Your task to perform on an android device: Open the contacts app Image 0: 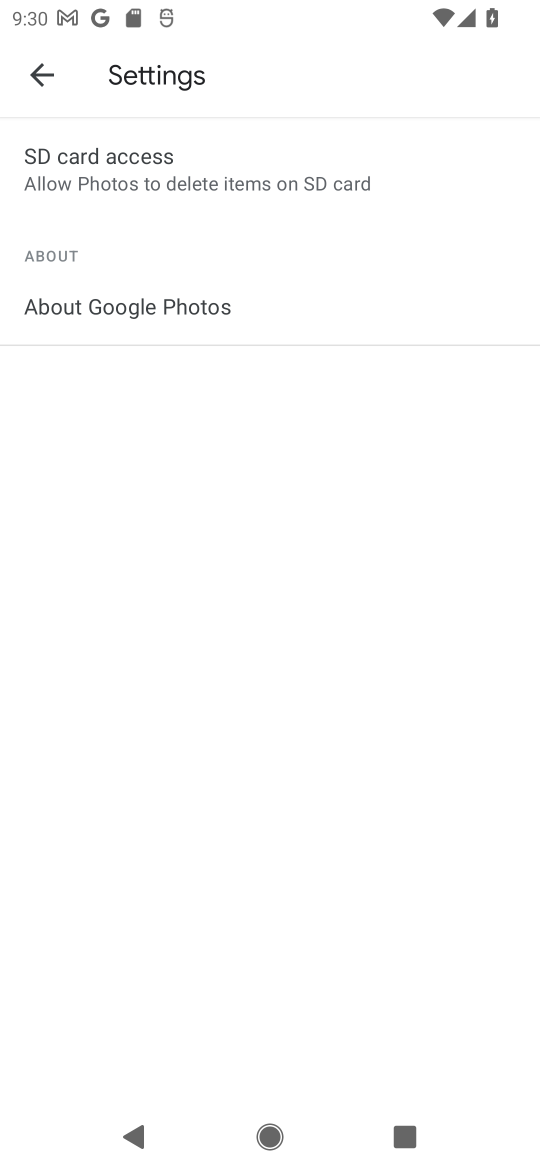
Step 0: press home button
Your task to perform on an android device: Open the contacts app Image 1: 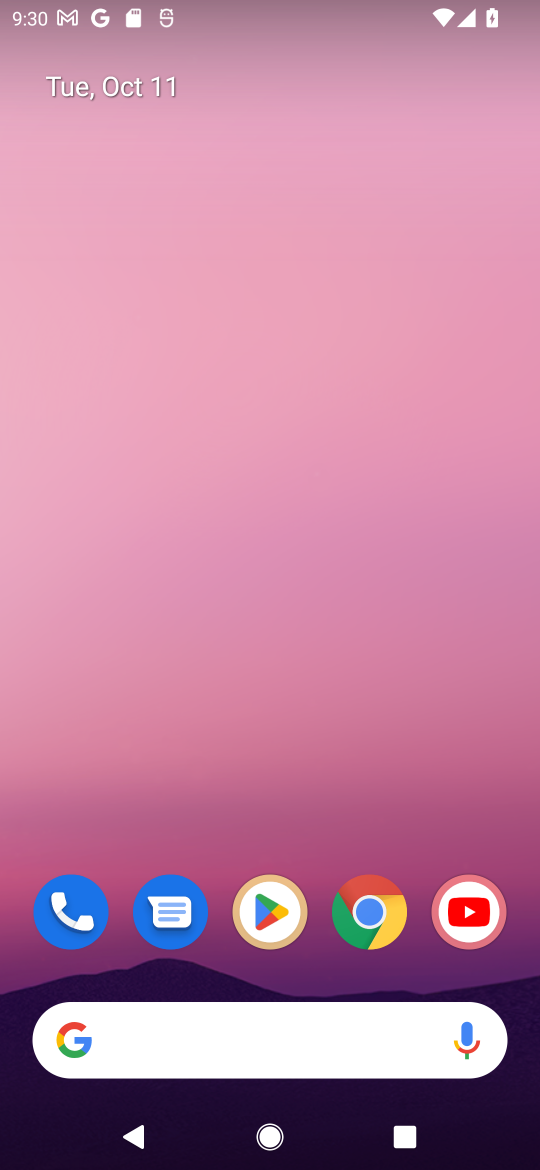
Step 1: drag from (332, 979) to (291, 124)
Your task to perform on an android device: Open the contacts app Image 2: 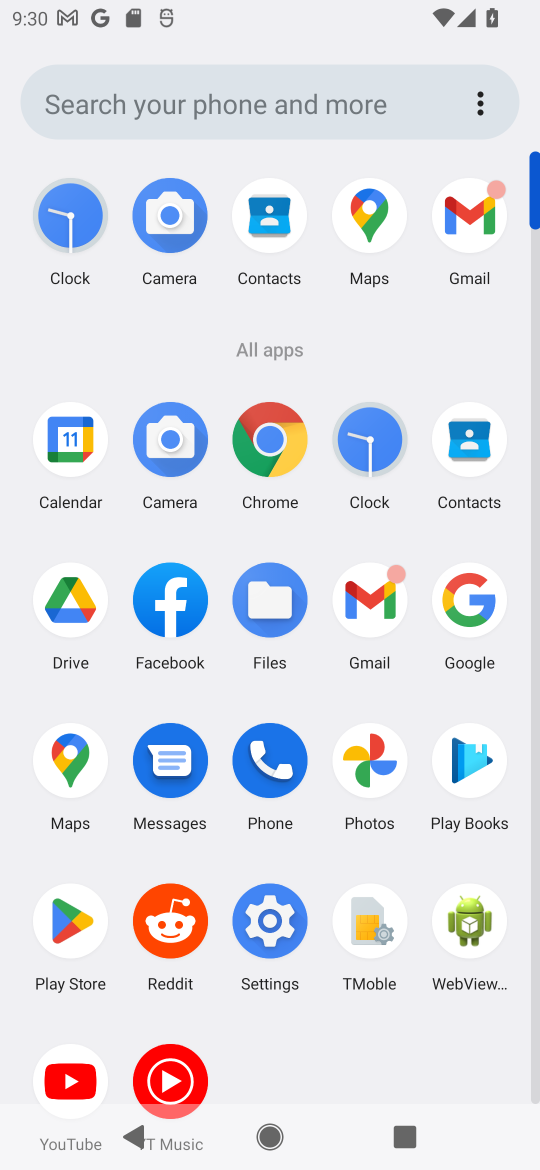
Step 2: click (470, 438)
Your task to perform on an android device: Open the contacts app Image 3: 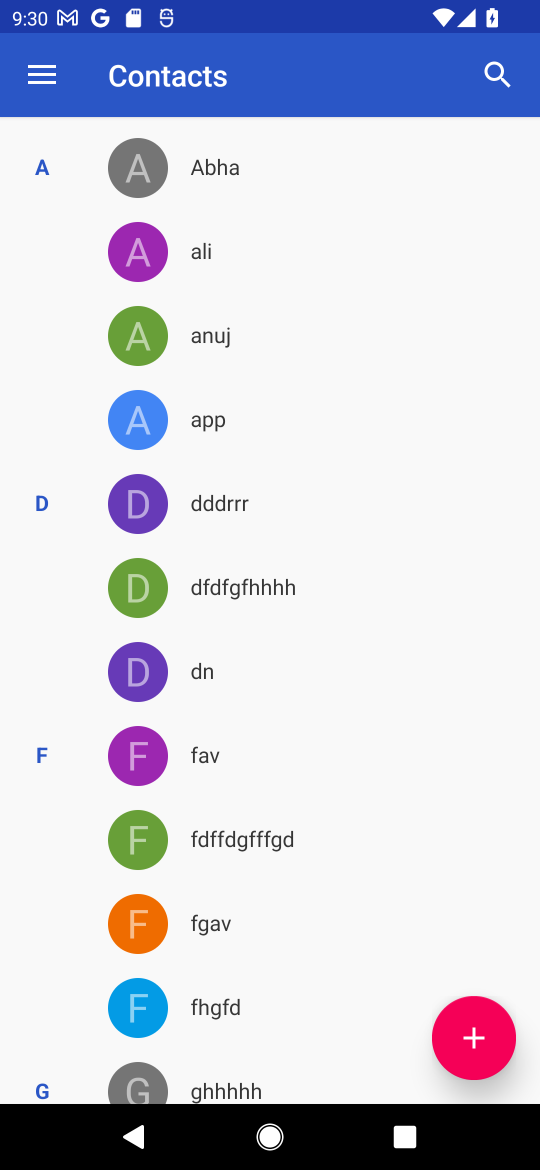
Step 3: task complete